Your task to perform on an android device: change the clock display to digital Image 0: 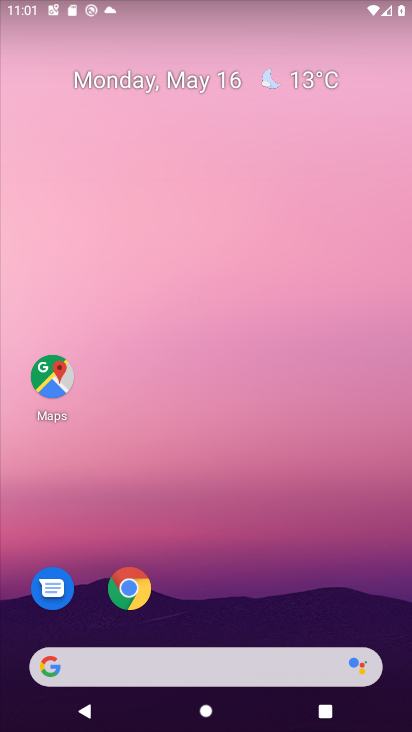
Step 0: press home button
Your task to perform on an android device: change the clock display to digital Image 1: 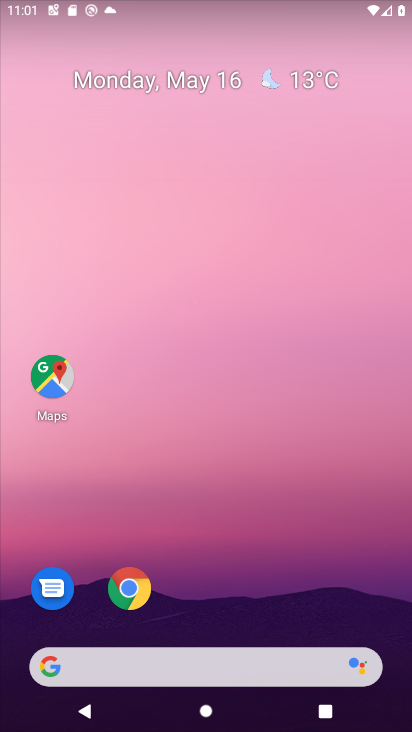
Step 1: drag from (210, 619) to (283, 0)
Your task to perform on an android device: change the clock display to digital Image 2: 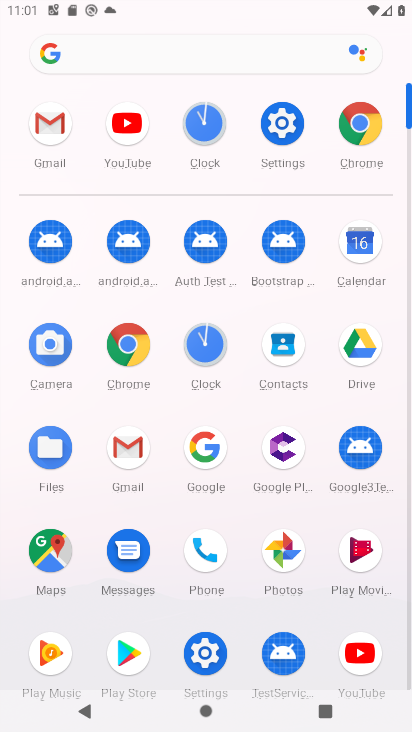
Step 2: click (203, 338)
Your task to perform on an android device: change the clock display to digital Image 3: 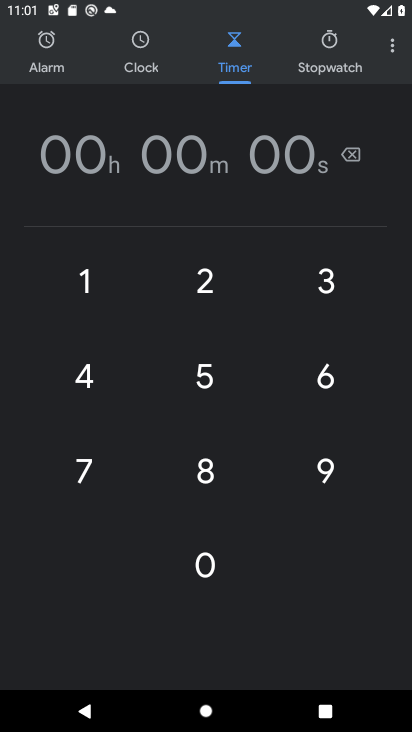
Step 3: click (388, 44)
Your task to perform on an android device: change the clock display to digital Image 4: 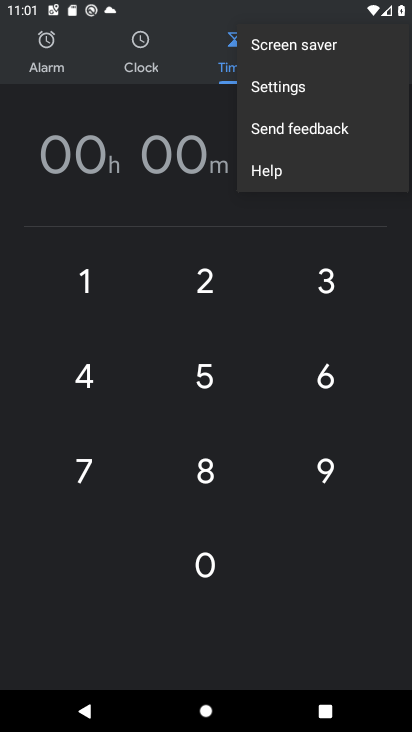
Step 4: click (316, 84)
Your task to perform on an android device: change the clock display to digital Image 5: 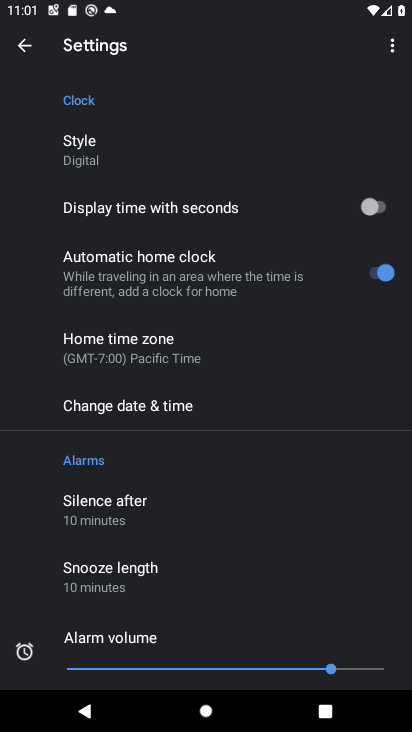
Step 5: click (115, 148)
Your task to perform on an android device: change the clock display to digital Image 6: 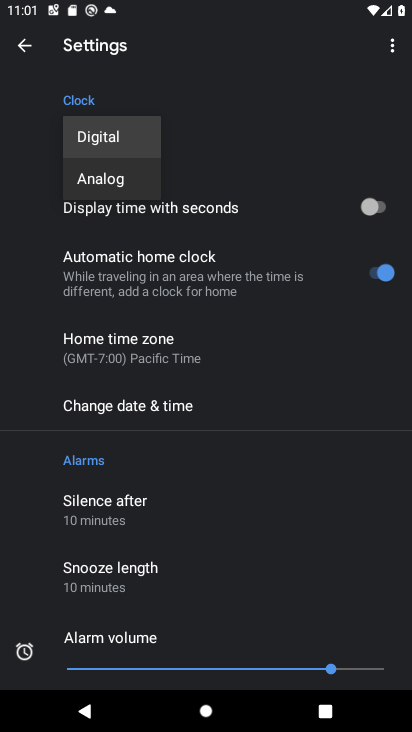
Step 6: click (138, 178)
Your task to perform on an android device: change the clock display to digital Image 7: 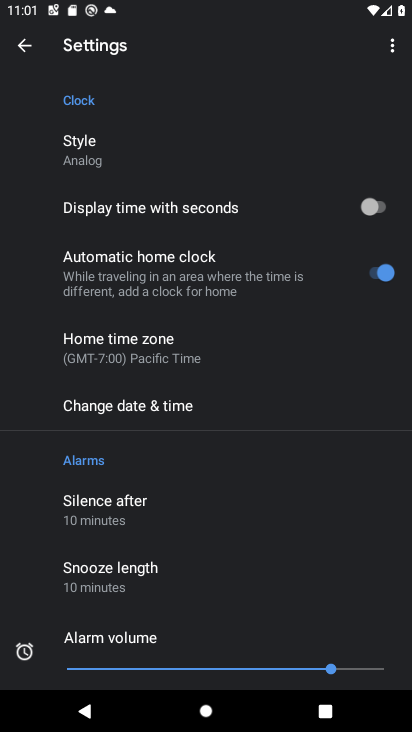
Step 7: click (125, 147)
Your task to perform on an android device: change the clock display to digital Image 8: 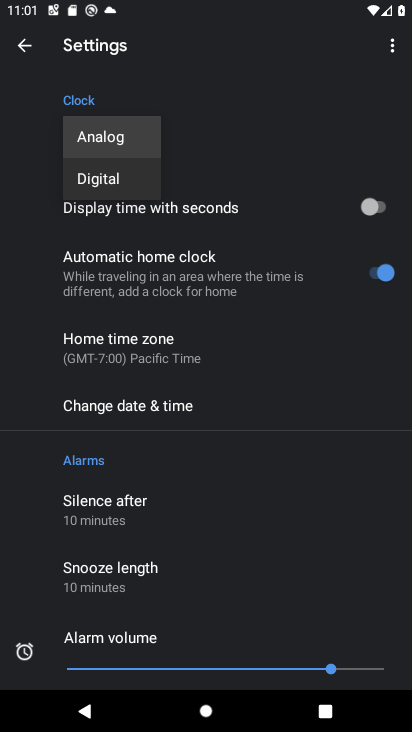
Step 8: click (130, 177)
Your task to perform on an android device: change the clock display to digital Image 9: 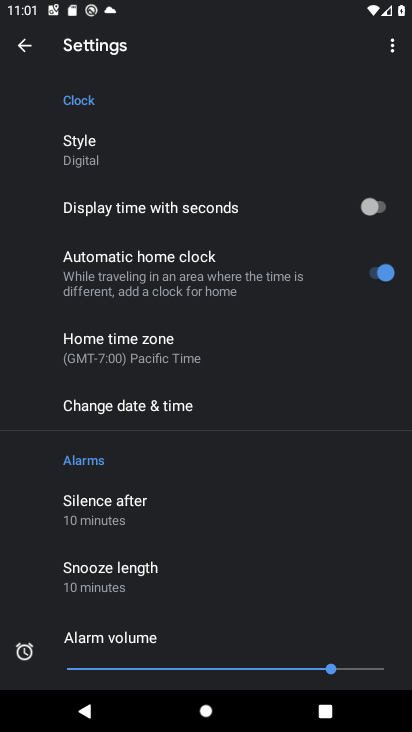
Step 9: task complete